Your task to perform on an android device: turn off location history Image 0: 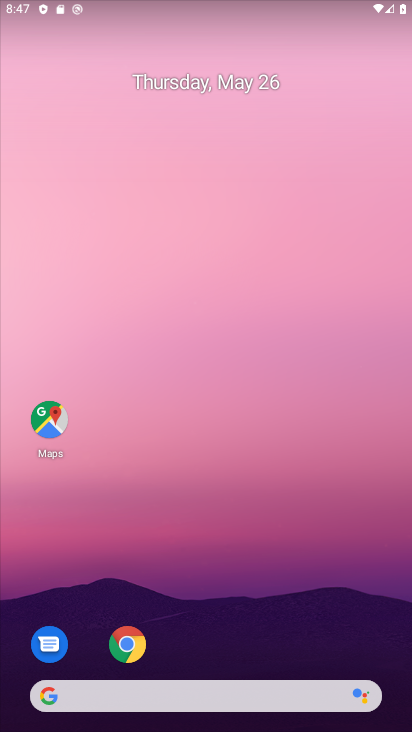
Step 0: drag from (187, 610) to (205, 143)
Your task to perform on an android device: turn off location history Image 1: 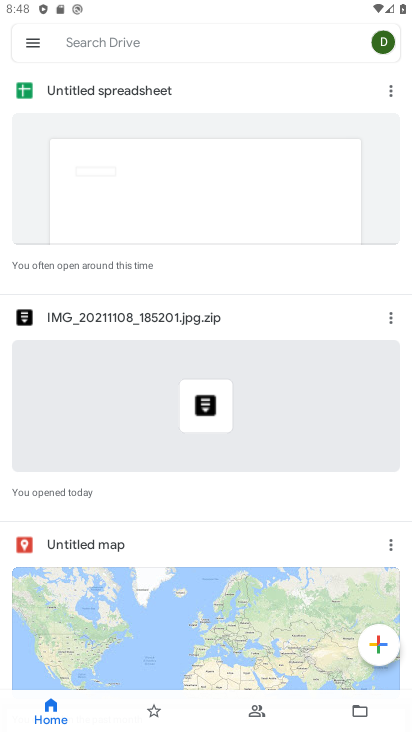
Step 1: press back button
Your task to perform on an android device: turn off location history Image 2: 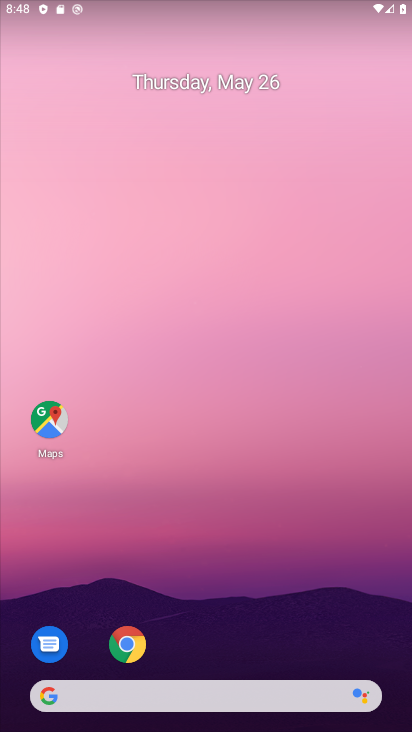
Step 2: drag from (196, 643) to (271, 116)
Your task to perform on an android device: turn off location history Image 3: 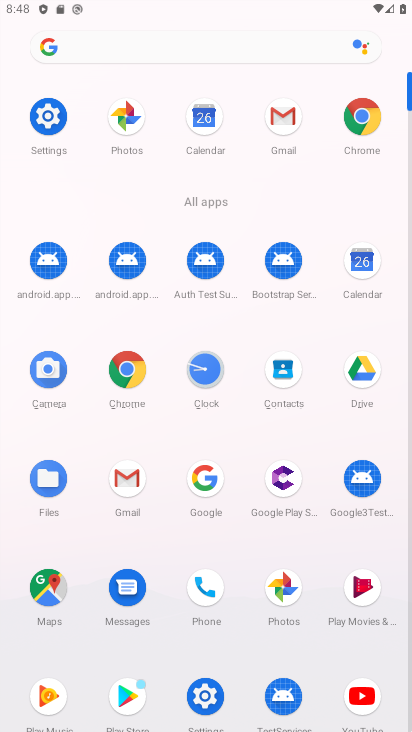
Step 3: click (49, 131)
Your task to perform on an android device: turn off location history Image 4: 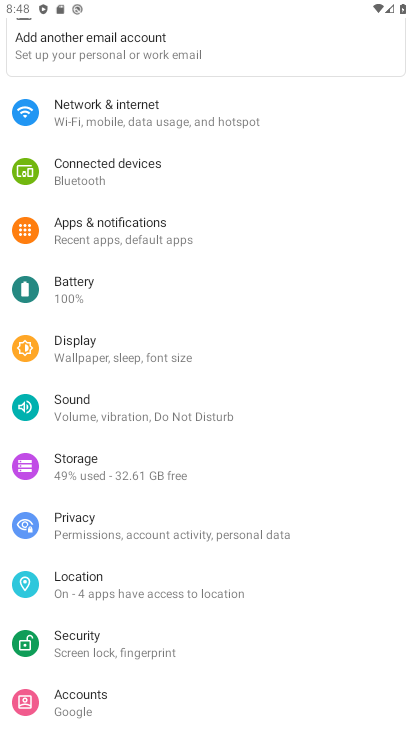
Step 4: click (111, 576)
Your task to perform on an android device: turn off location history Image 5: 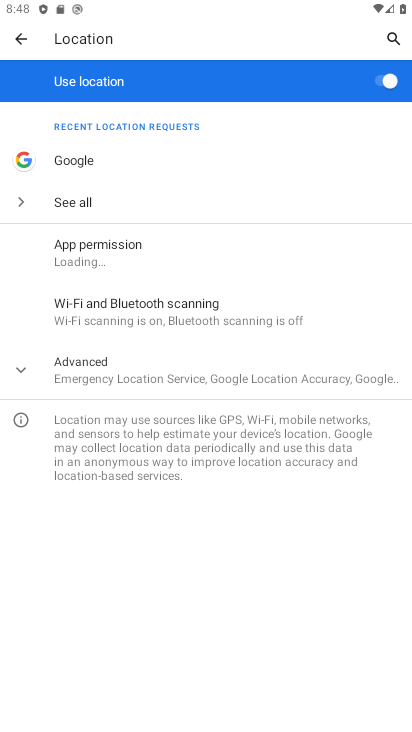
Step 5: click (142, 371)
Your task to perform on an android device: turn off location history Image 6: 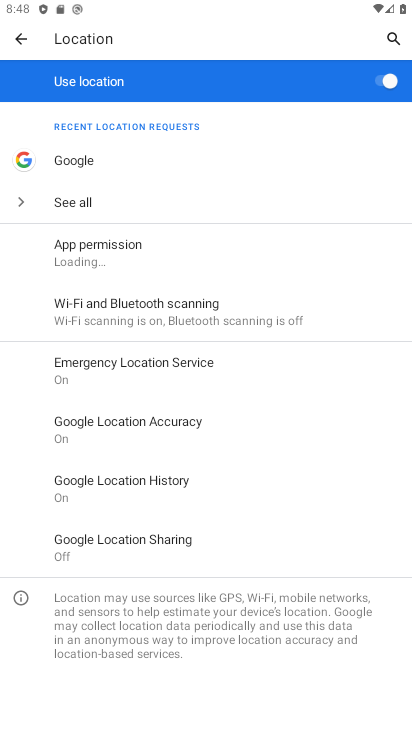
Step 6: click (140, 490)
Your task to perform on an android device: turn off location history Image 7: 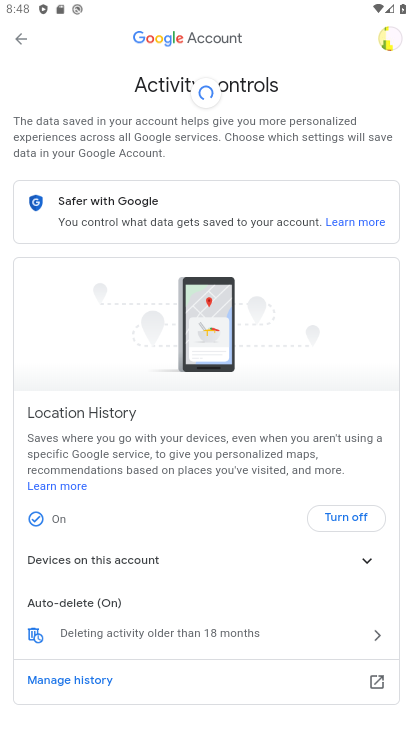
Step 7: click (358, 516)
Your task to perform on an android device: turn off location history Image 8: 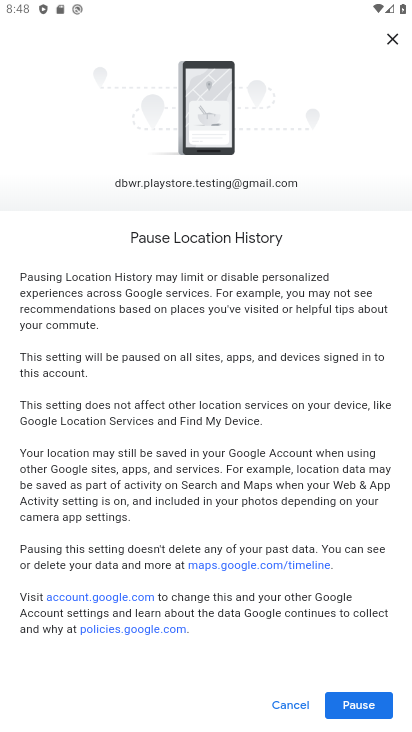
Step 8: click (361, 706)
Your task to perform on an android device: turn off location history Image 9: 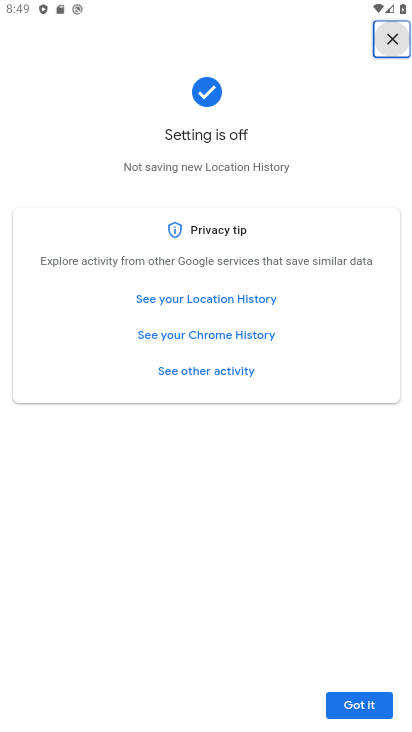
Step 9: task complete